Your task to perform on an android device: Open settings on Google Maps Image 0: 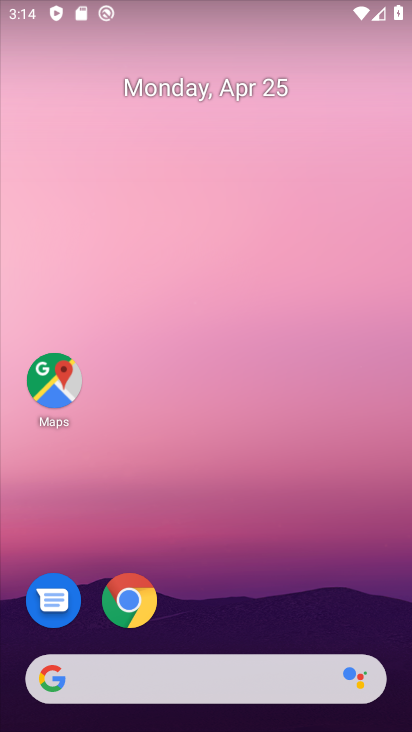
Step 0: click (61, 383)
Your task to perform on an android device: Open settings on Google Maps Image 1: 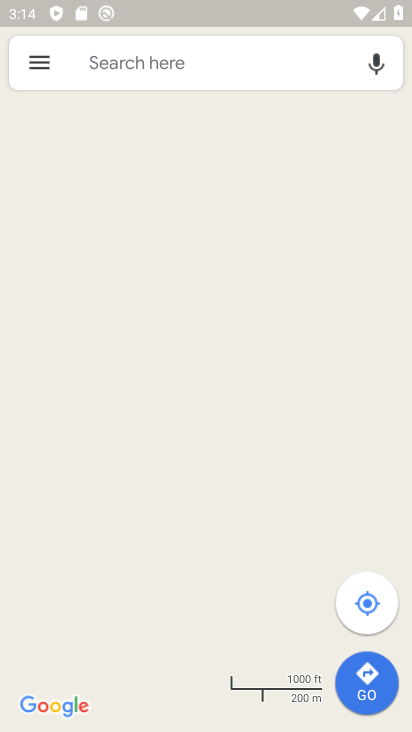
Step 1: click (41, 53)
Your task to perform on an android device: Open settings on Google Maps Image 2: 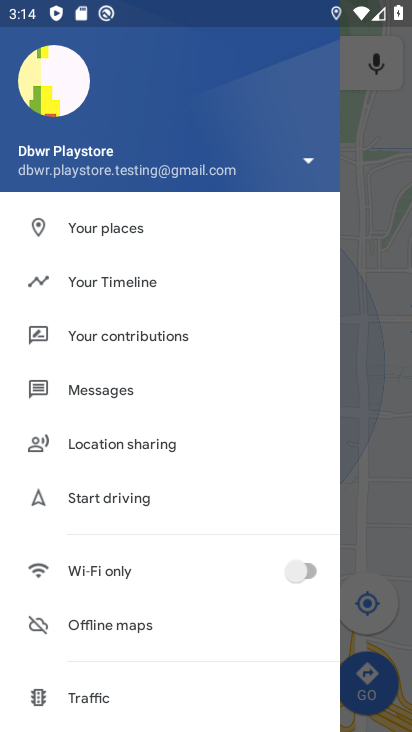
Step 2: drag from (181, 640) to (219, 263)
Your task to perform on an android device: Open settings on Google Maps Image 3: 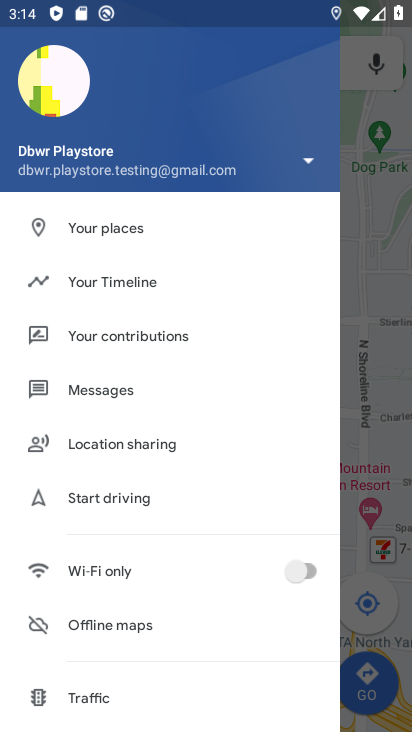
Step 3: drag from (136, 649) to (173, 265)
Your task to perform on an android device: Open settings on Google Maps Image 4: 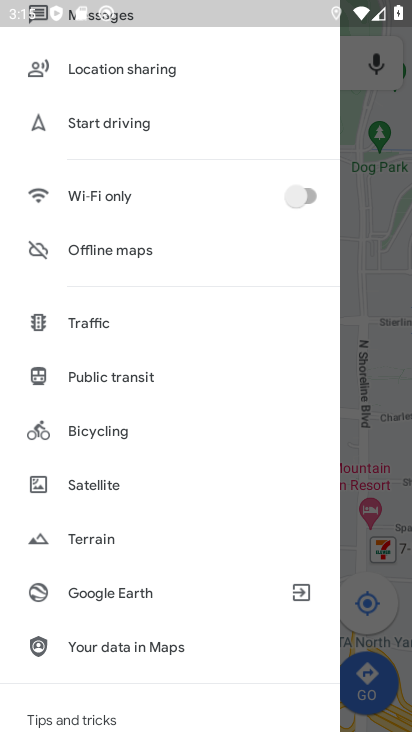
Step 4: drag from (179, 585) to (184, 203)
Your task to perform on an android device: Open settings on Google Maps Image 5: 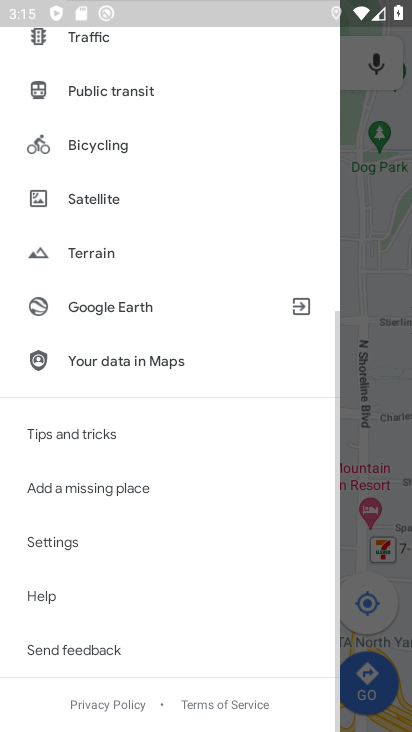
Step 5: click (113, 549)
Your task to perform on an android device: Open settings on Google Maps Image 6: 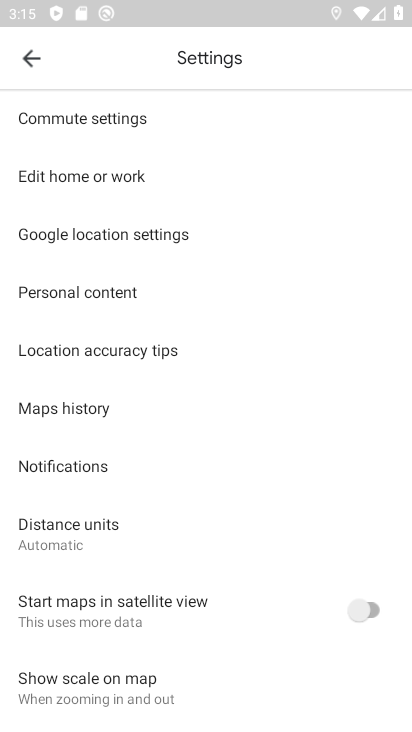
Step 6: task complete